Your task to perform on an android device: turn on javascript in the chrome app Image 0: 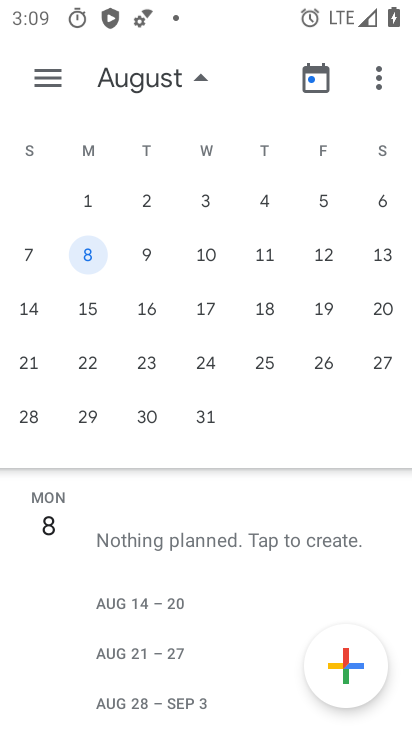
Step 0: press home button
Your task to perform on an android device: turn on javascript in the chrome app Image 1: 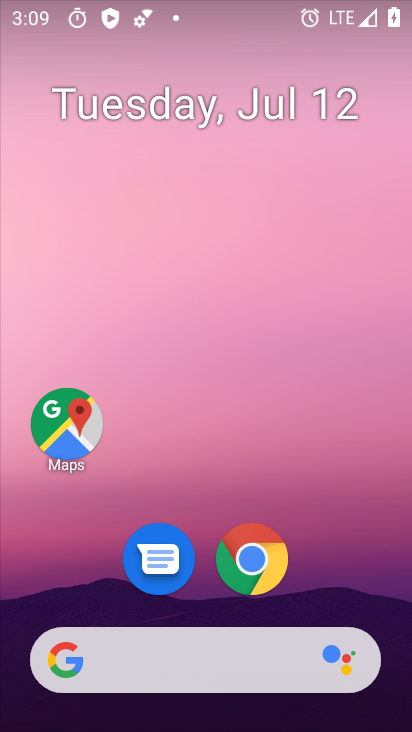
Step 1: drag from (367, 566) to (361, 150)
Your task to perform on an android device: turn on javascript in the chrome app Image 2: 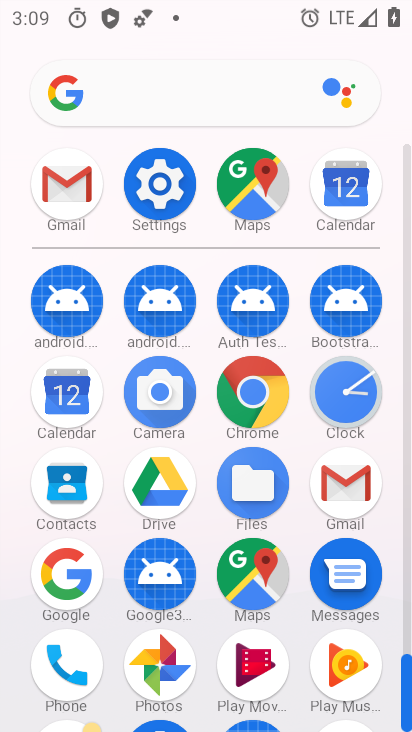
Step 2: click (269, 377)
Your task to perform on an android device: turn on javascript in the chrome app Image 3: 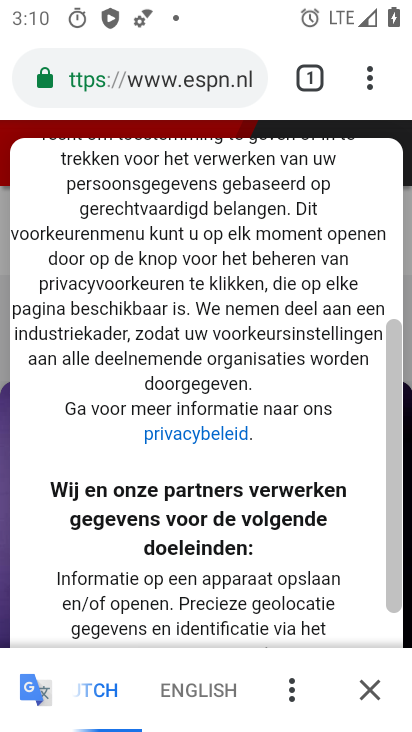
Step 3: click (374, 77)
Your task to perform on an android device: turn on javascript in the chrome app Image 4: 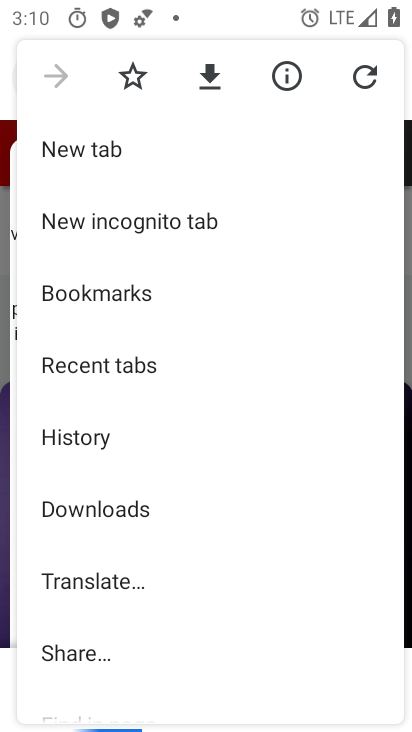
Step 4: drag from (324, 488) to (322, 364)
Your task to perform on an android device: turn on javascript in the chrome app Image 5: 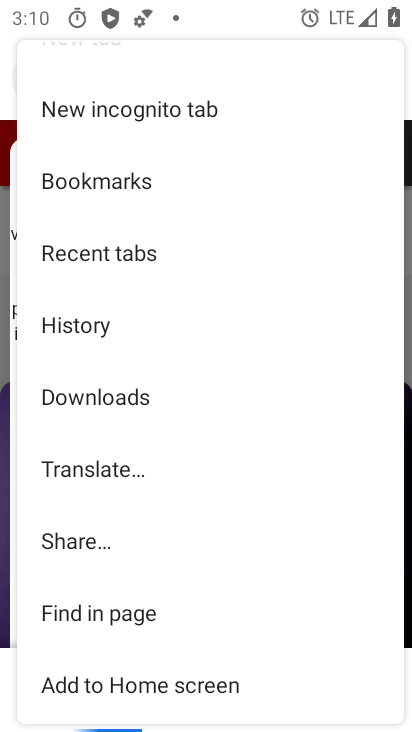
Step 5: drag from (337, 508) to (319, 394)
Your task to perform on an android device: turn on javascript in the chrome app Image 6: 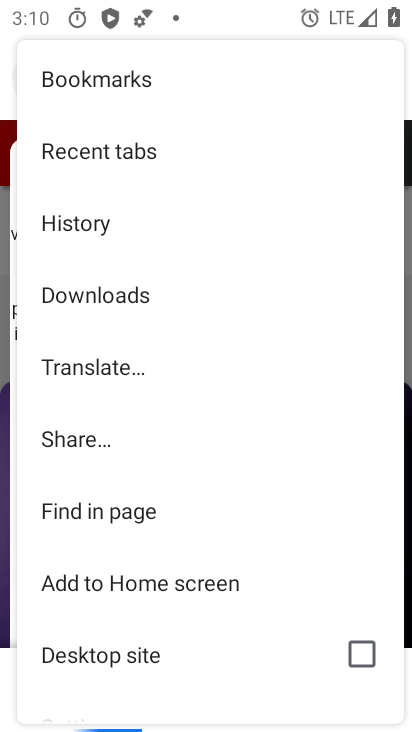
Step 6: drag from (300, 548) to (283, 405)
Your task to perform on an android device: turn on javascript in the chrome app Image 7: 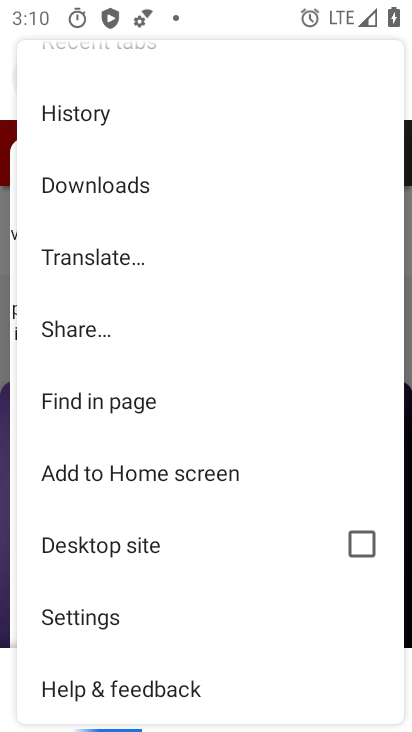
Step 7: drag from (283, 567) to (285, 454)
Your task to perform on an android device: turn on javascript in the chrome app Image 8: 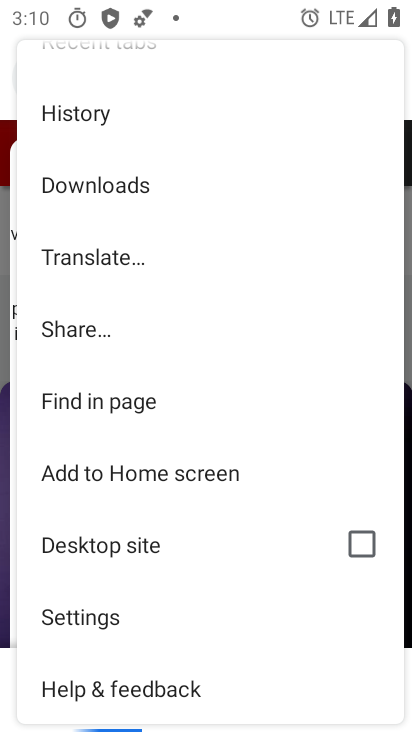
Step 8: click (206, 627)
Your task to perform on an android device: turn on javascript in the chrome app Image 9: 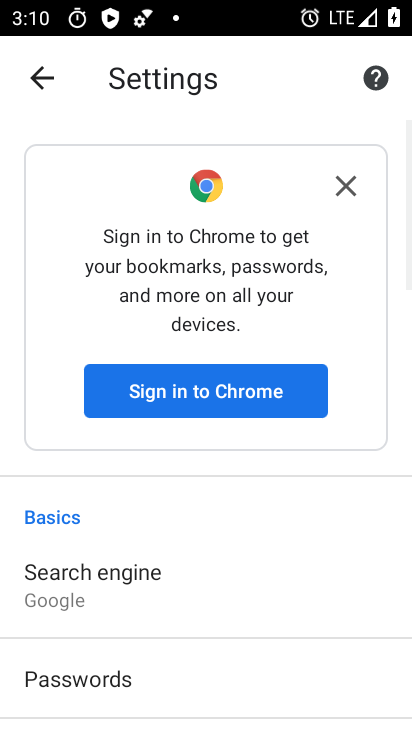
Step 9: drag from (255, 559) to (258, 464)
Your task to perform on an android device: turn on javascript in the chrome app Image 10: 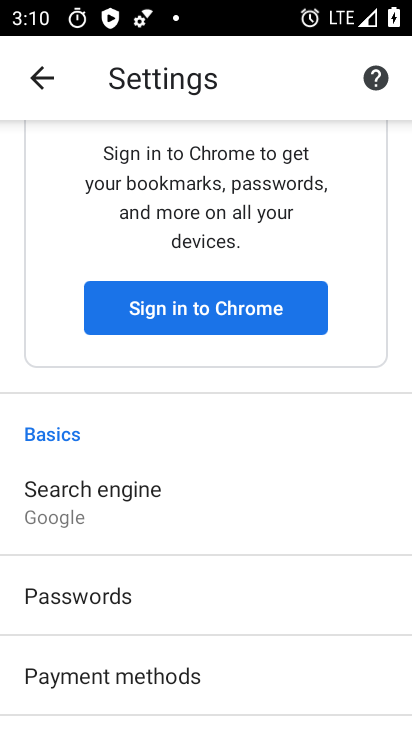
Step 10: drag from (288, 593) to (298, 445)
Your task to perform on an android device: turn on javascript in the chrome app Image 11: 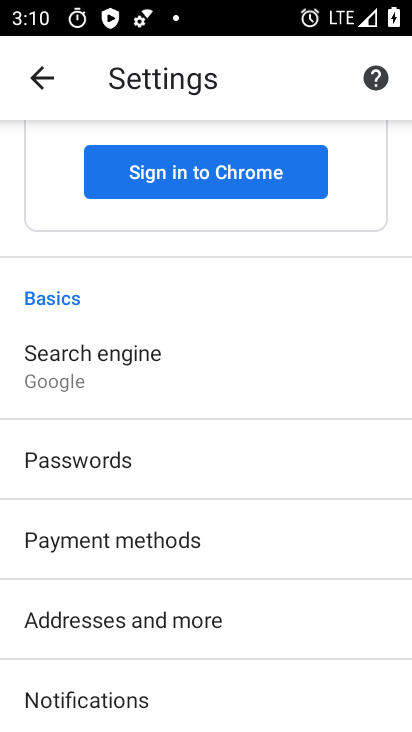
Step 11: drag from (302, 584) to (303, 458)
Your task to perform on an android device: turn on javascript in the chrome app Image 12: 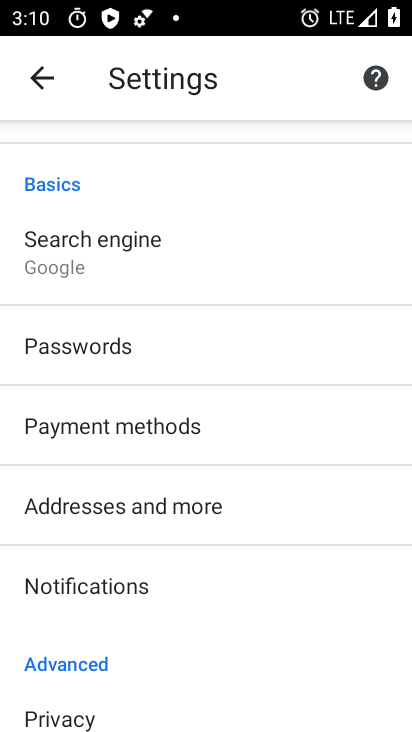
Step 12: drag from (296, 600) to (292, 498)
Your task to perform on an android device: turn on javascript in the chrome app Image 13: 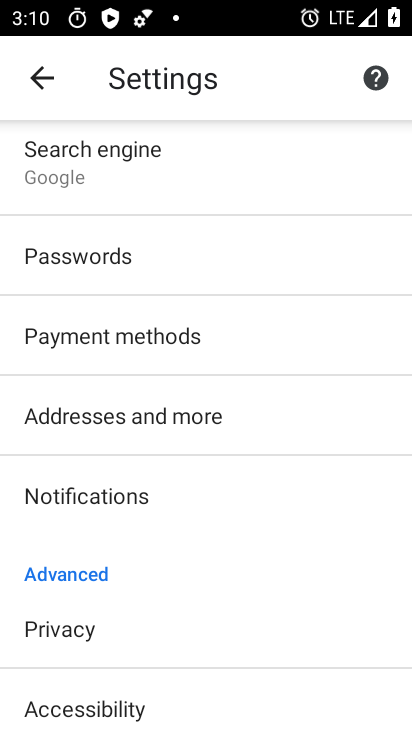
Step 13: drag from (281, 636) to (280, 490)
Your task to perform on an android device: turn on javascript in the chrome app Image 14: 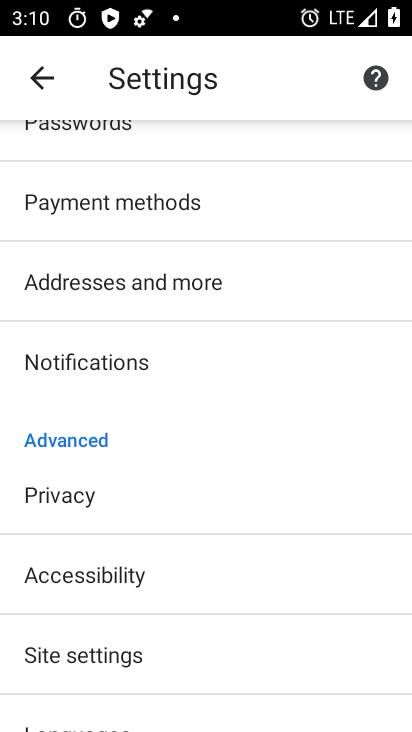
Step 14: click (276, 631)
Your task to perform on an android device: turn on javascript in the chrome app Image 15: 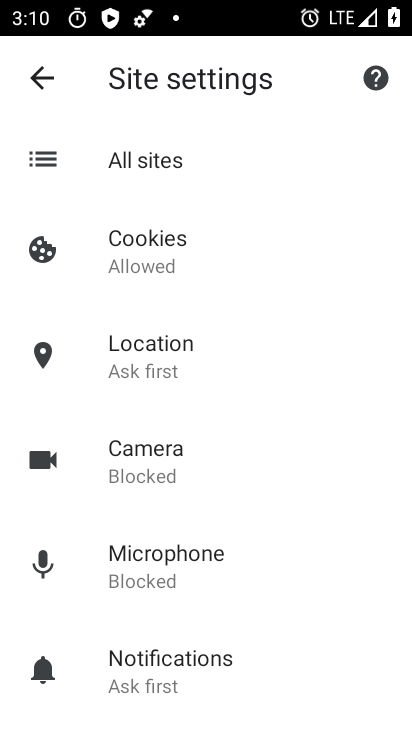
Step 15: drag from (318, 533) to (323, 448)
Your task to perform on an android device: turn on javascript in the chrome app Image 16: 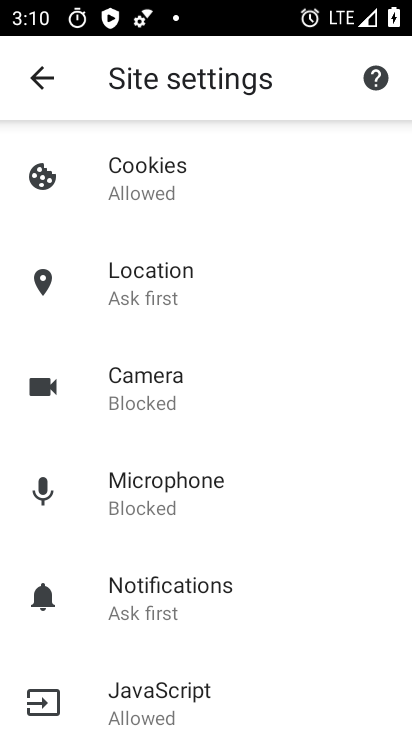
Step 16: drag from (317, 555) to (306, 481)
Your task to perform on an android device: turn on javascript in the chrome app Image 17: 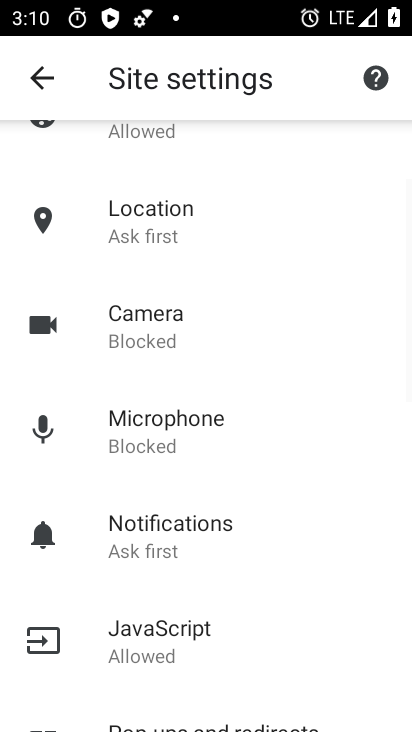
Step 17: drag from (317, 598) to (309, 497)
Your task to perform on an android device: turn on javascript in the chrome app Image 18: 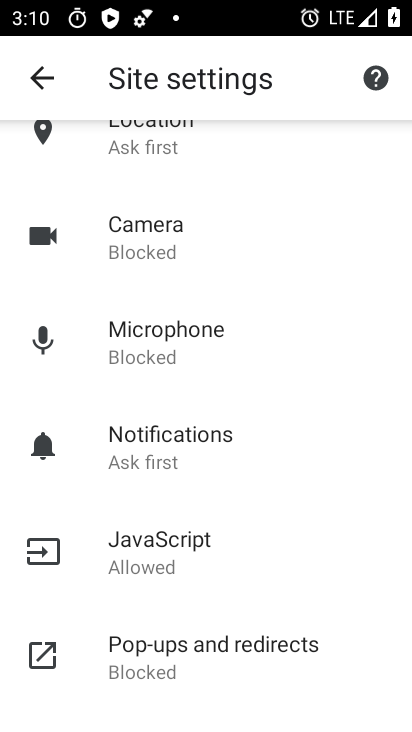
Step 18: drag from (334, 586) to (340, 466)
Your task to perform on an android device: turn on javascript in the chrome app Image 19: 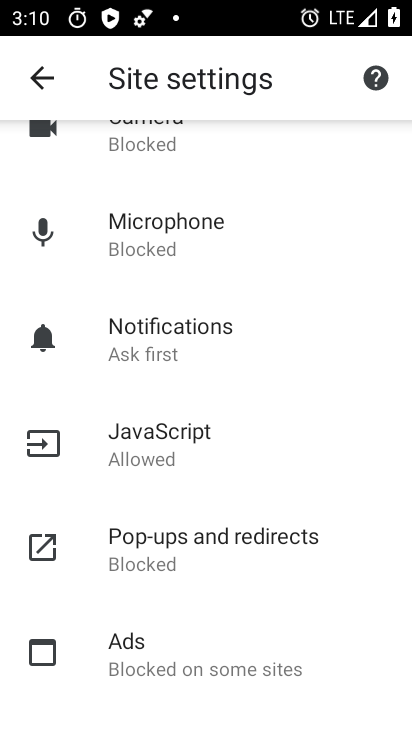
Step 19: drag from (357, 596) to (359, 502)
Your task to perform on an android device: turn on javascript in the chrome app Image 20: 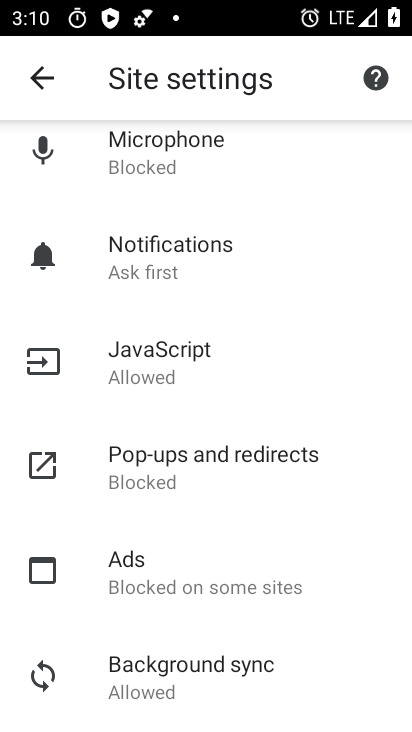
Step 20: click (281, 380)
Your task to perform on an android device: turn on javascript in the chrome app Image 21: 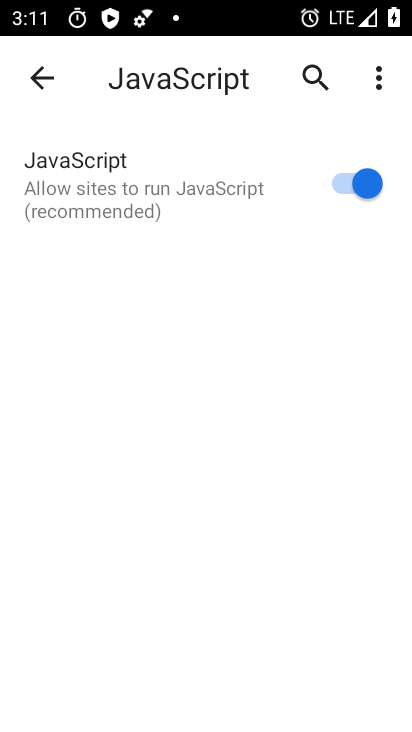
Step 21: task complete